Your task to perform on an android device: turn on improve location accuracy Image 0: 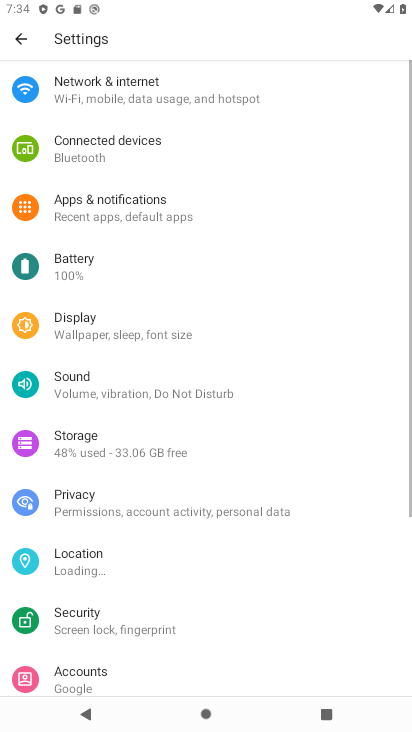
Step 0: click (120, 554)
Your task to perform on an android device: turn on improve location accuracy Image 1: 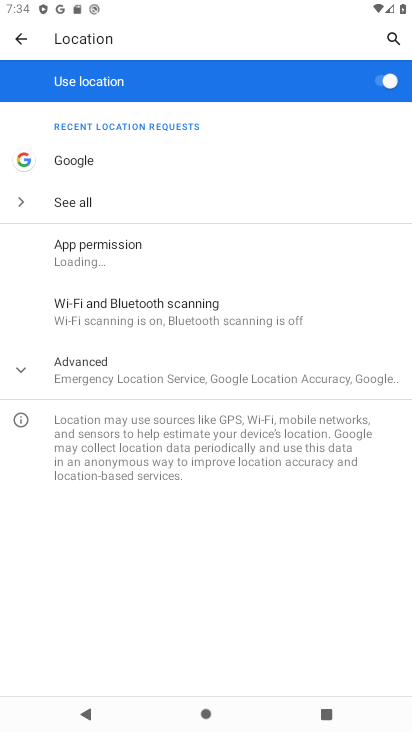
Step 1: click (83, 375)
Your task to perform on an android device: turn on improve location accuracy Image 2: 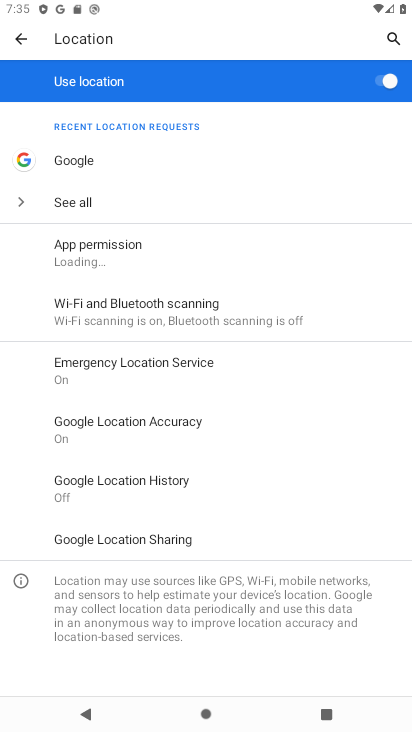
Step 2: click (83, 428)
Your task to perform on an android device: turn on improve location accuracy Image 3: 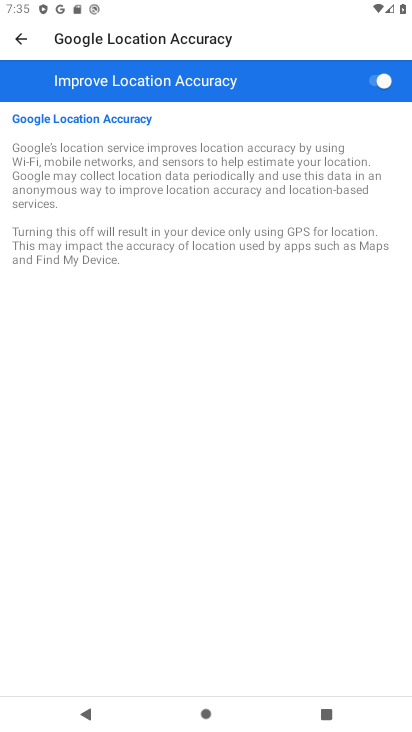
Step 3: task complete